Your task to perform on an android device: turn off airplane mode Image 0: 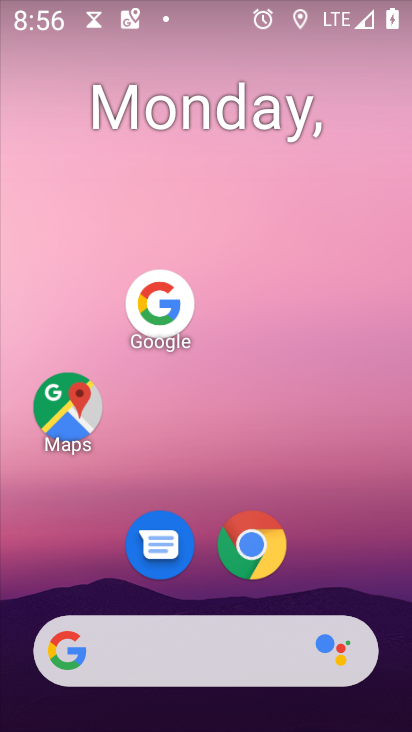
Step 0: press home button
Your task to perform on an android device: turn off airplane mode Image 1: 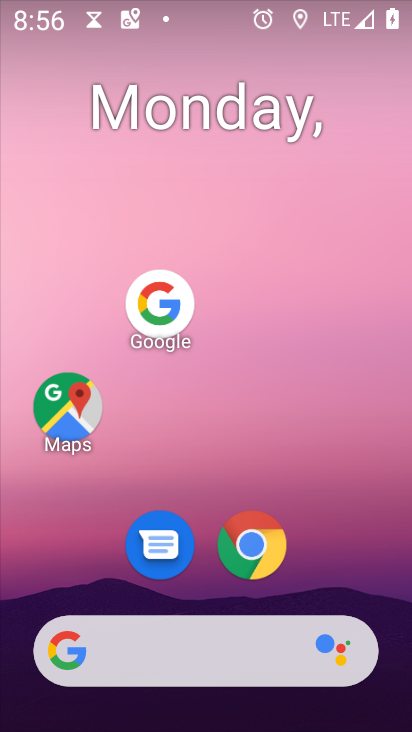
Step 1: drag from (239, 654) to (351, 107)
Your task to perform on an android device: turn off airplane mode Image 2: 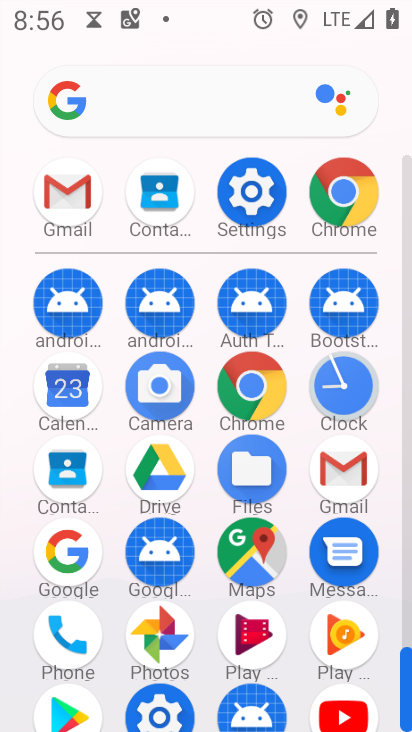
Step 2: click (260, 200)
Your task to perform on an android device: turn off airplane mode Image 3: 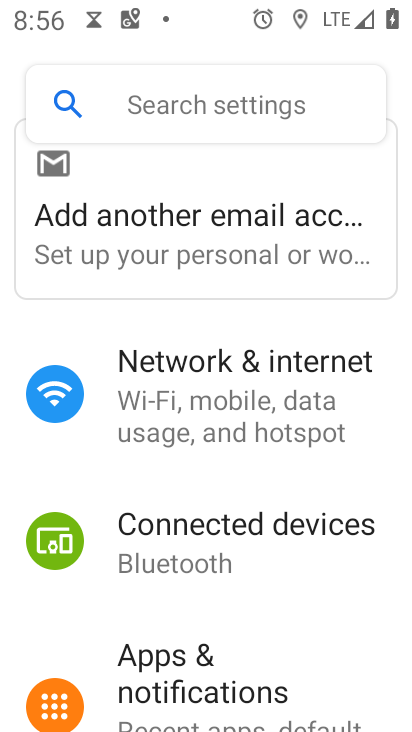
Step 3: click (225, 376)
Your task to perform on an android device: turn off airplane mode Image 4: 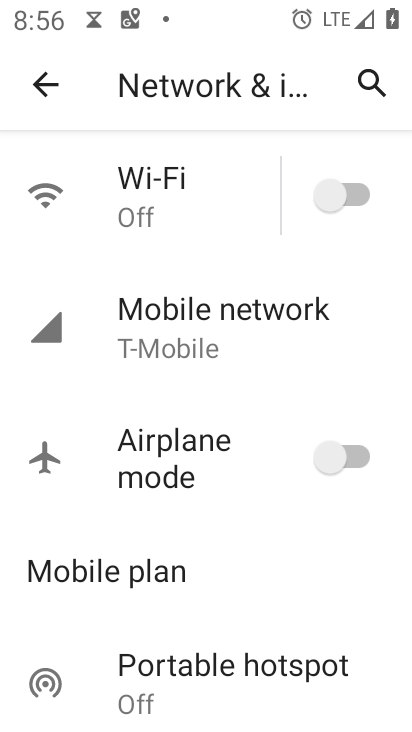
Step 4: task complete